Your task to perform on an android device: Go to network settings Image 0: 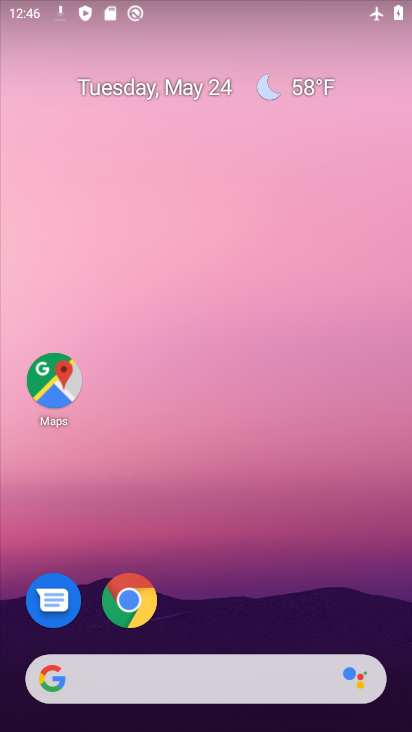
Step 0: drag from (286, 552) to (212, 2)
Your task to perform on an android device: Go to network settings Image 1: 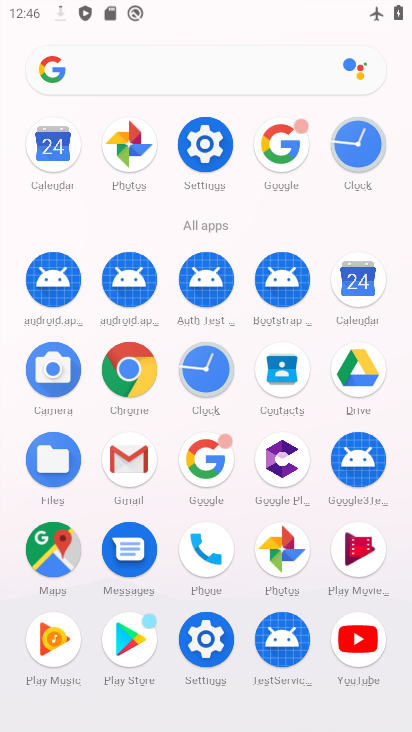
Step 1: click (206, 138)
Your task to perform on an android device: Go to network settings Image 2: 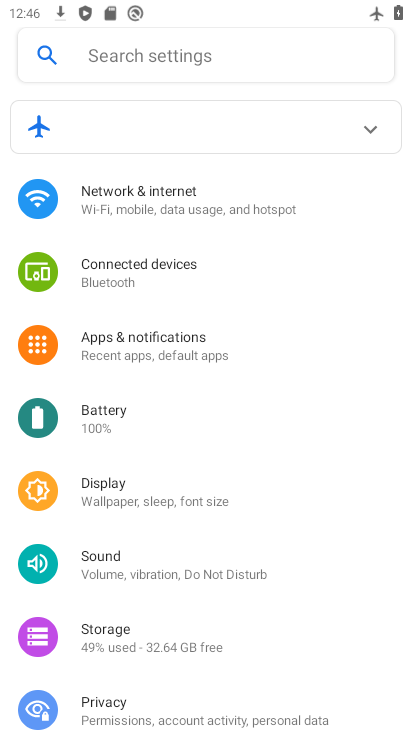
Step 2: click (230, 201)
Your task to perform on an android device: Go to network settings Image 3: 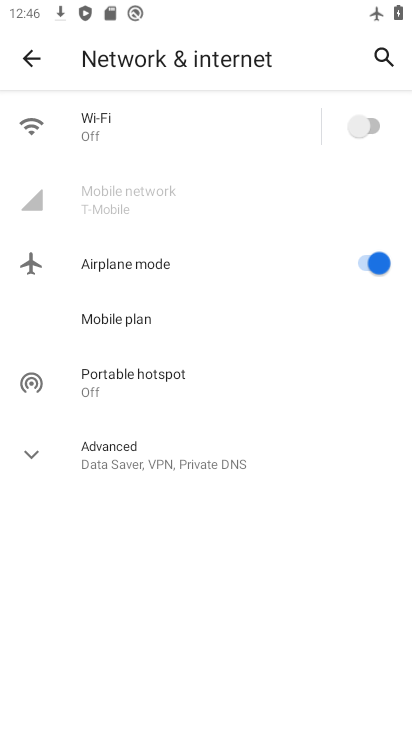
Step 3: task complete